Your task to perform on an android device: Search for vegetarian restaurants on Maps Image 0: 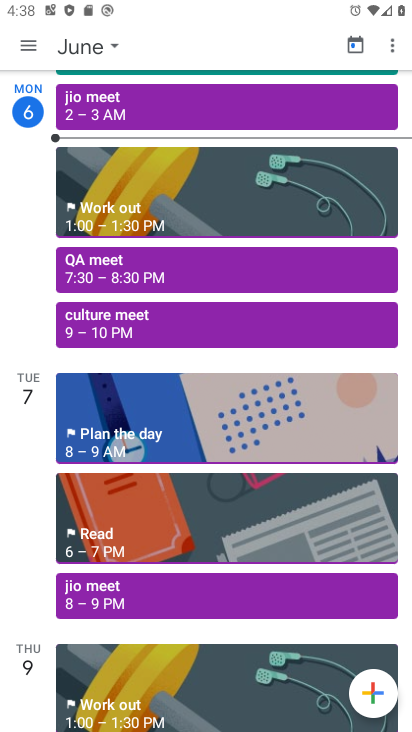
Step 0: press home button
Your task to perform on an android device: Search for vegetarian restaurants on Maps Image 1: 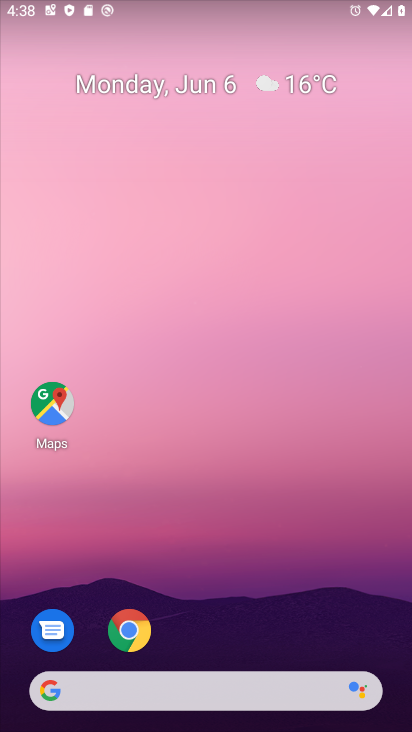
Step 1: drag from (274, 517) to (116, 2)
Your task to perform on an android device: Search for vegetarian restaurants on Maps Image 2: 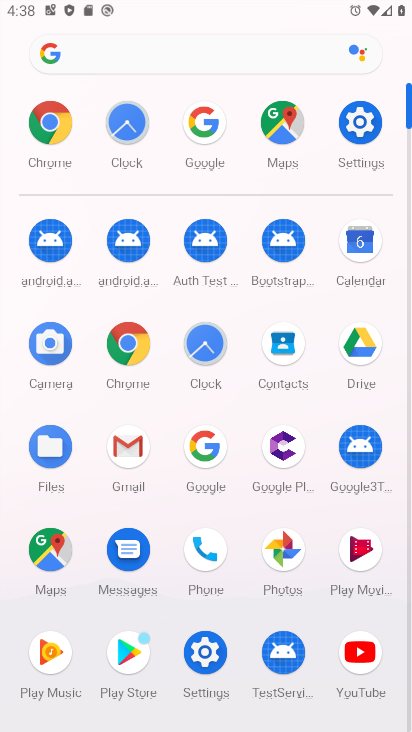
Step 2: click (286, 123)
Your task to perform on an android device: Search for vegetarian restaurants on Maps Image 3: 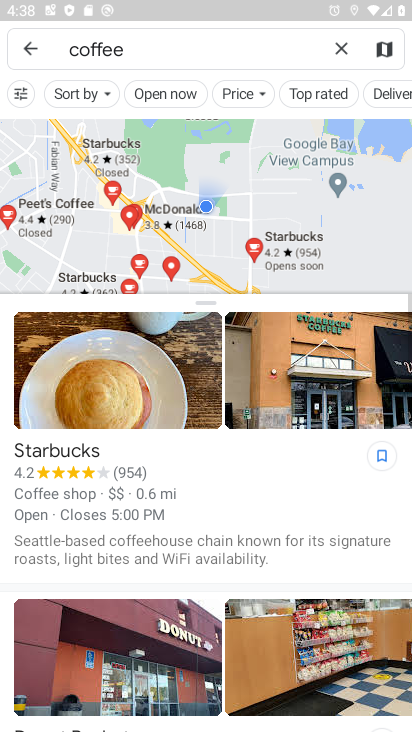
Step 3: click (337, 53)
Your task to perform on an android device: Search for vegetarian restaurants on Maps Image 4: 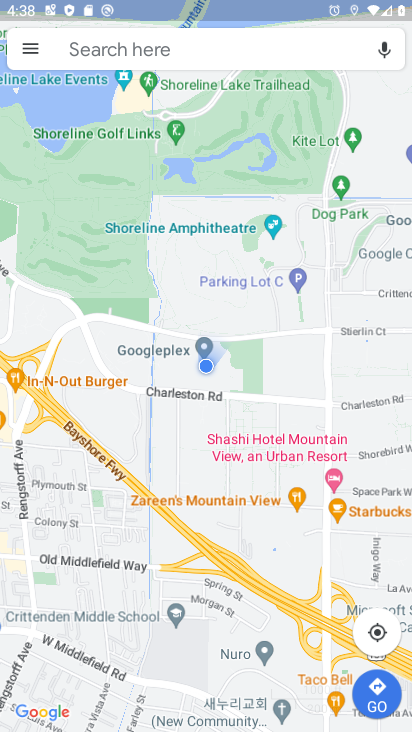
Step 4: click (208, 52)
Your task to perform on an android device: Search for vegetarian restaurants on Maps Image 5: 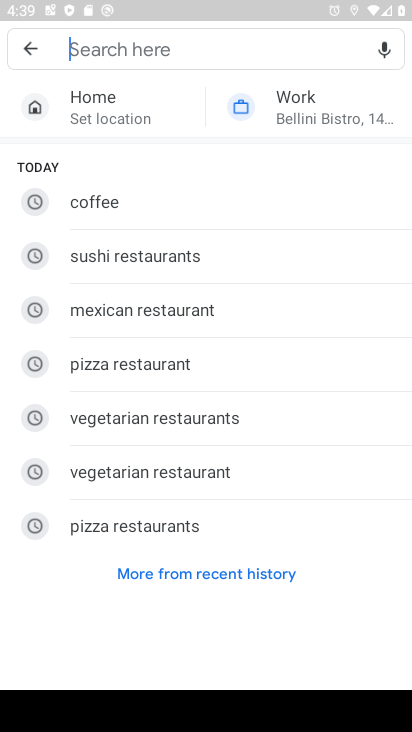
Step 5: click (178, 423)
Your task to perform on an android device: Search for vegetarian restaurants on Maps Image 6: 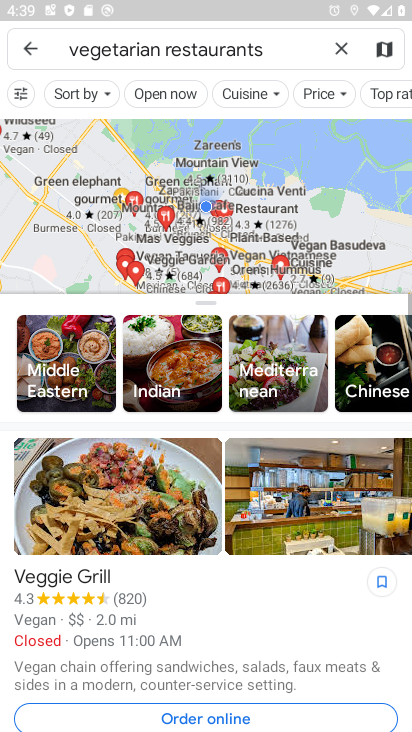
Step 6: task complete